Your task to perform on an android device: Is it going to rain this weekend? Image 0: 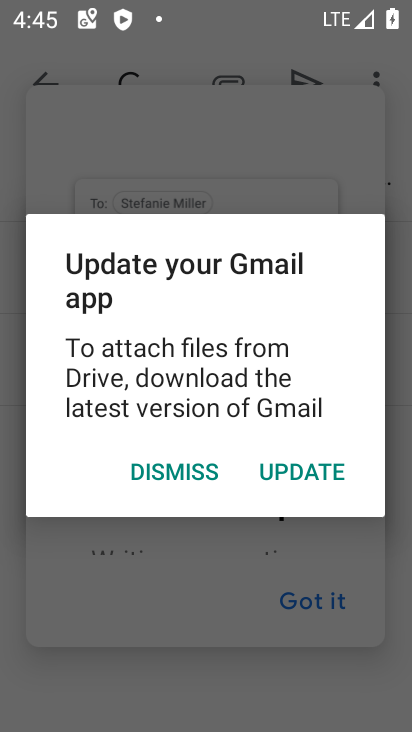
Step 0: press home button
Your task to perform on an android device: Is it going to rain this weekend? Image 1: 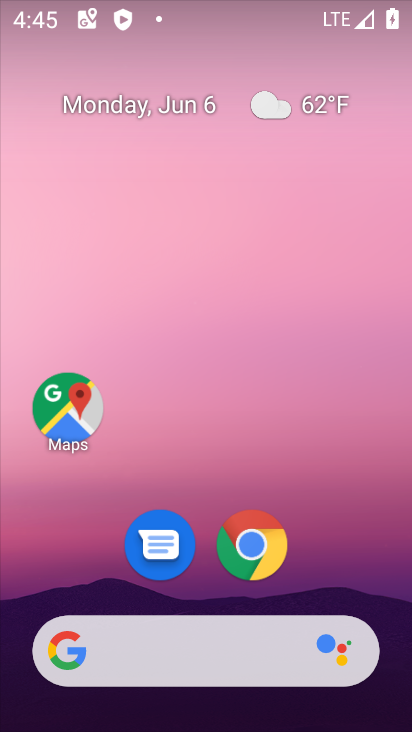
Step 1: drag from (227, 731) to (186, 116)
Your task to perform on an android device: Is it going to rain this weekend? Image 2: 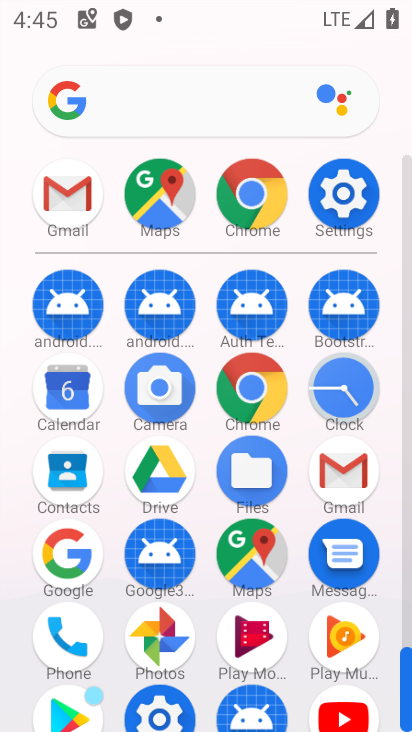
Step 2: click (69, 562)
Your task to perform on an android device: Is it going to rain this weekend? Image 3: 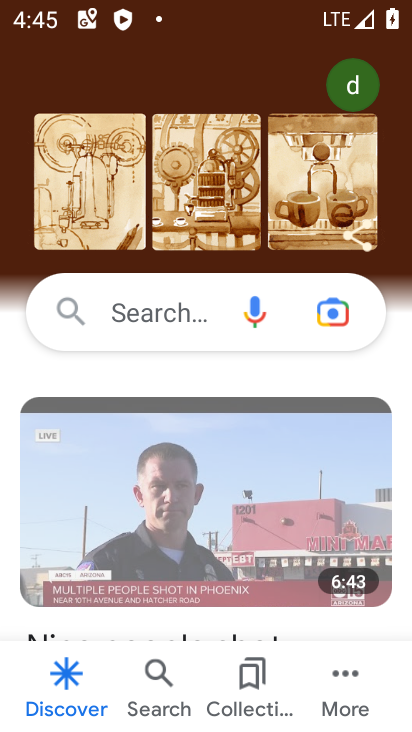
Step 3: click (160, 307)
Your task to perform on an android device: Is it going to rain this weekend? Image 4: 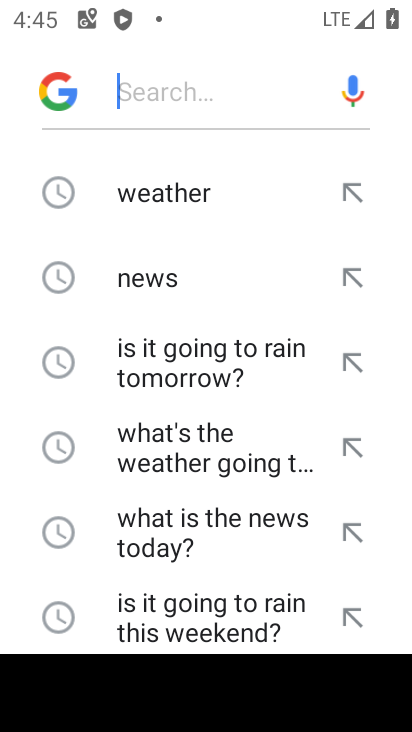
Step 4: click (141, 194)
Your task to perform on an android device: Is it going to rain this weekend? Image 5: 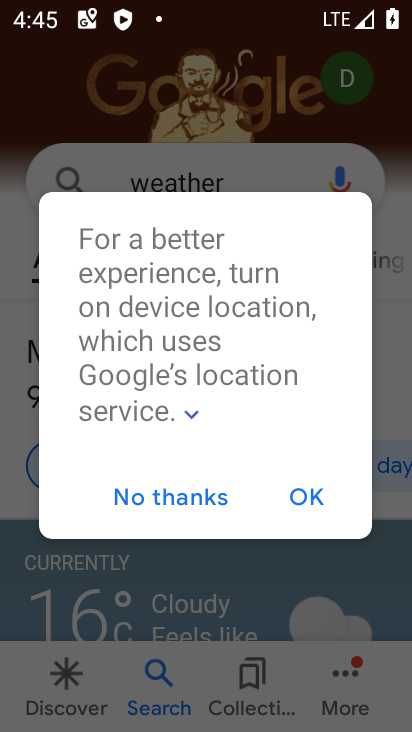
Step 5: click (211, 495)
Your task to perform on an android device: Is it going to rain this weekend? Image 6: 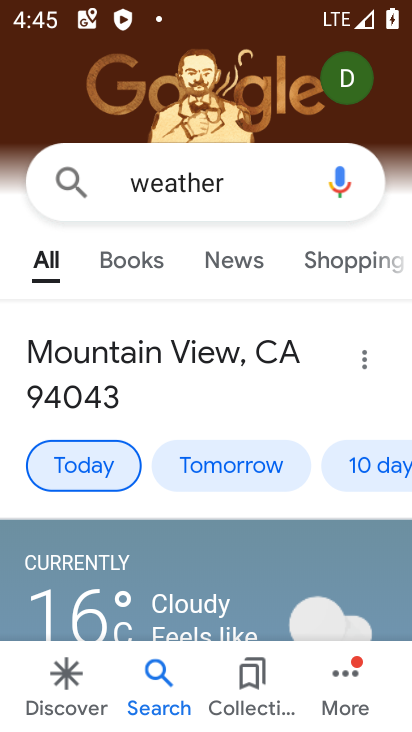
Step 6: click (374, 461)
Your task to perform on an android device: Is it going to rain this weekend? Image 7: 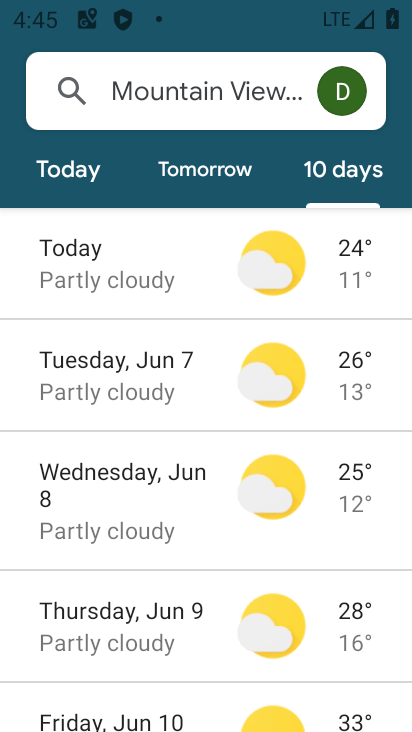
Step 7: drag from (120, 692) to (123, 383)
Your task to perform on an android device: Is it going to rain this weekend? Image 8: 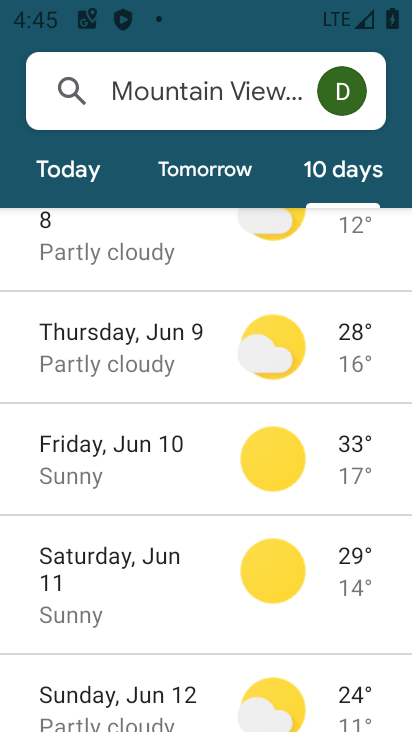
Step 8: click (116, 558)
Your task to perform on an android device: Is it going to rain this weekend? Image 9: 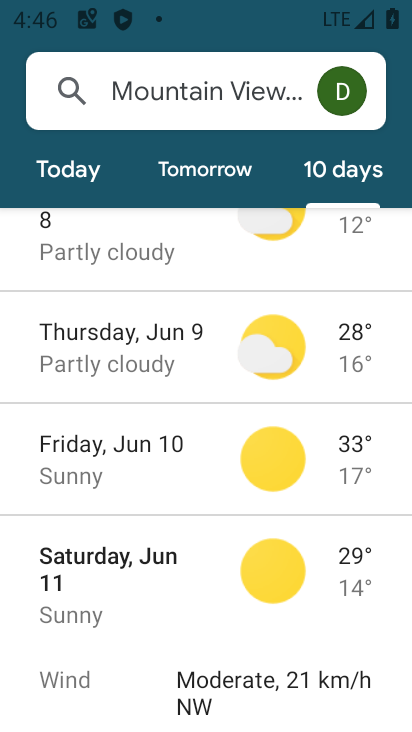
Step 9: task complete